Your task to perform on an android device: turn pop-ups on in chrome Image 0: 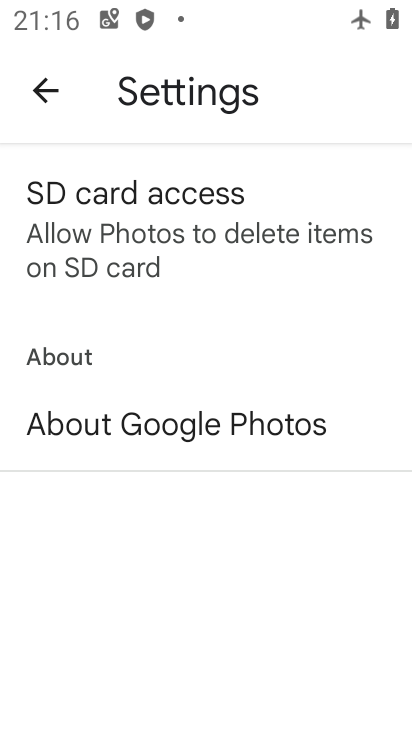
Step 0: press home button
Your task to perform on an android device: turn pop-ups on in chrome Image 1: 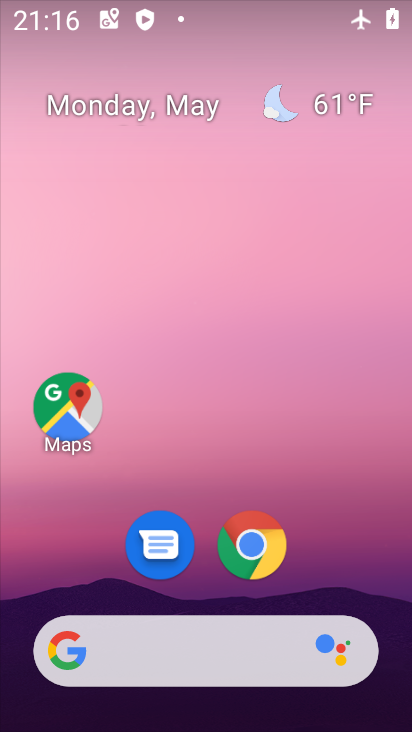
Step 1: click (242, 550)
Your task to perform on an android device: turn pop-ups on in chrome Image 2: 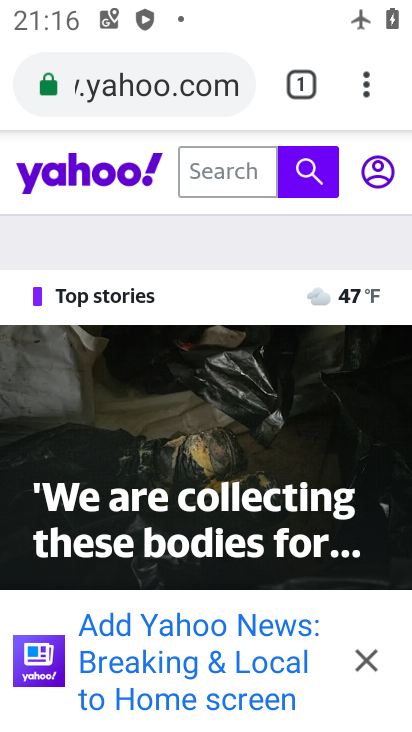
Step 2: drag from (359, 95) to (202, 585)
Your task to perform on an android device: turn pop-ups on in chrome Image 3: 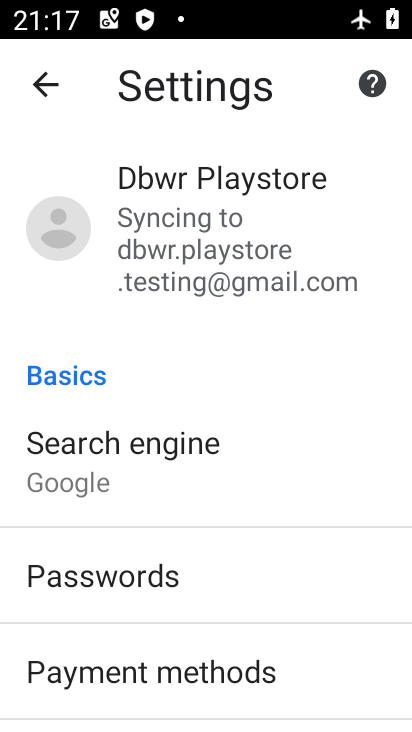
Step 3: drag from (189, 675) to (202, 323)
Your task to perform on an android device: turn pop-ups on in chrome Image 4: 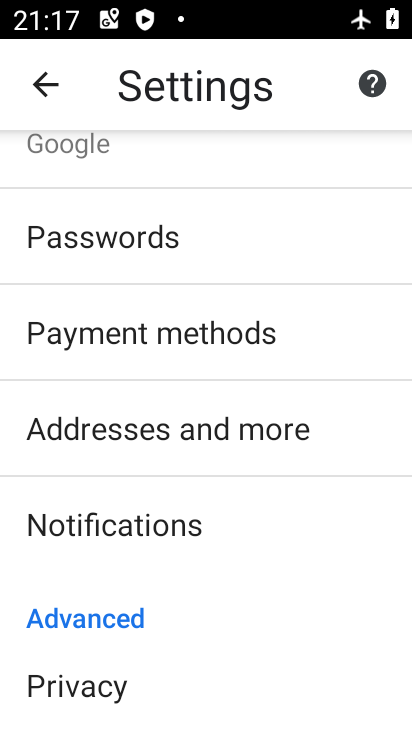
Step 4: drag from (219, 608) to (203, 179)
Your task to perform on an android device: turn pop-ups on in chrome Image 5: 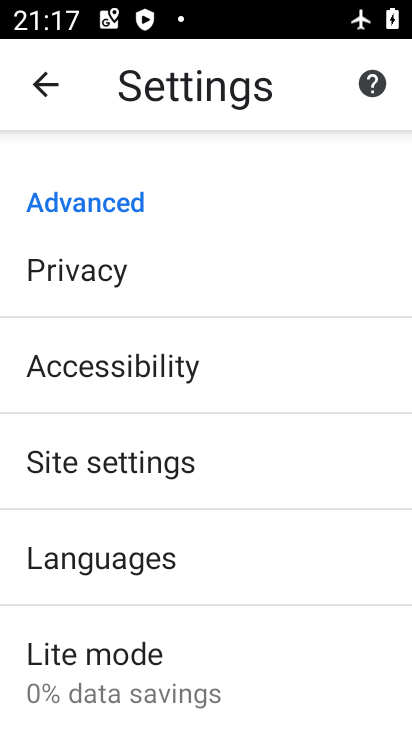
Step 5: click (202, 440)
Your task to perform on an android device: turn pop-ups on in chrome Image 6: 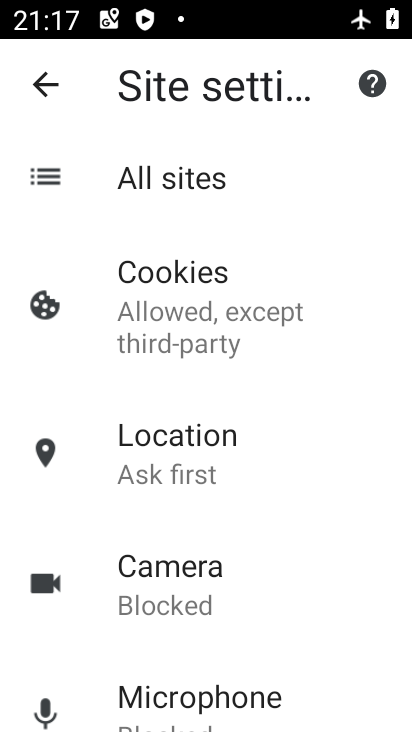
Step 6: drag from (202, 615) to (194, 227)
Your task to perform on an android device: turn pop-ups on in chrome Image 7: 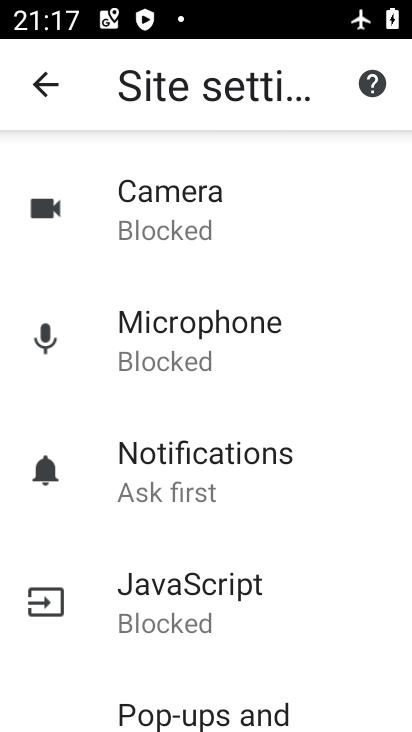
Step 7: click (200, 704)
Your task to perform on an android device: turn pop-ups on in chrome Image 8: 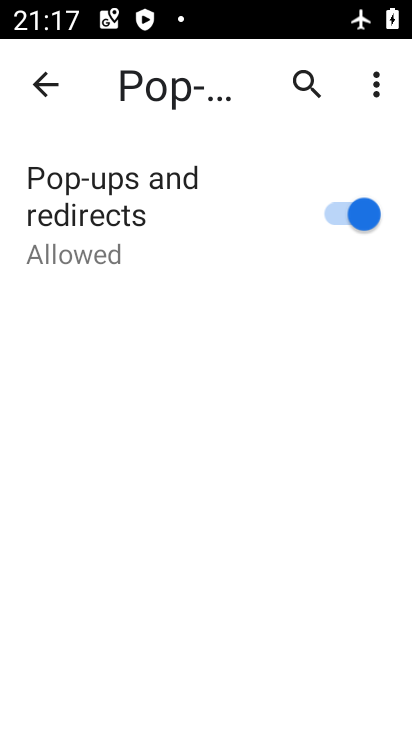
Step 8: task complete